Your task to perform on an android device: show emergency info Image 0: 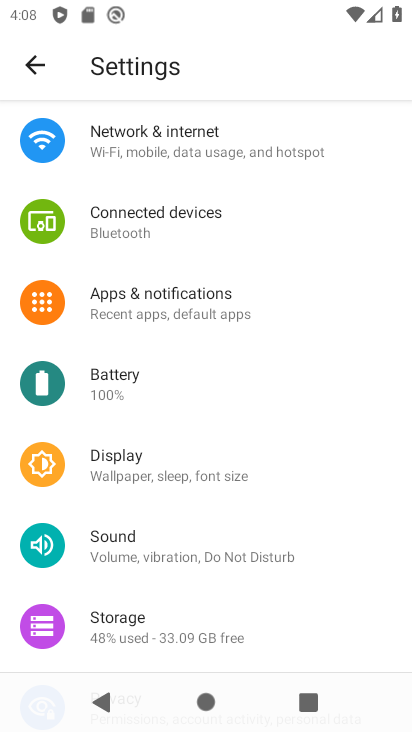
Step 0: drag from (207, 625) to (386, 29)
Your task to perform on an android device: show emergency info Image 1: 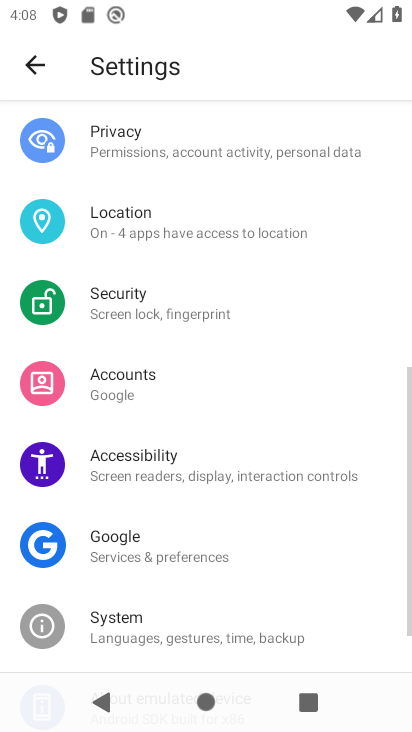
Step 1: drag from (188, 561) to (352, 8)
Your task to perform on an android device: show emergency info Image 2: 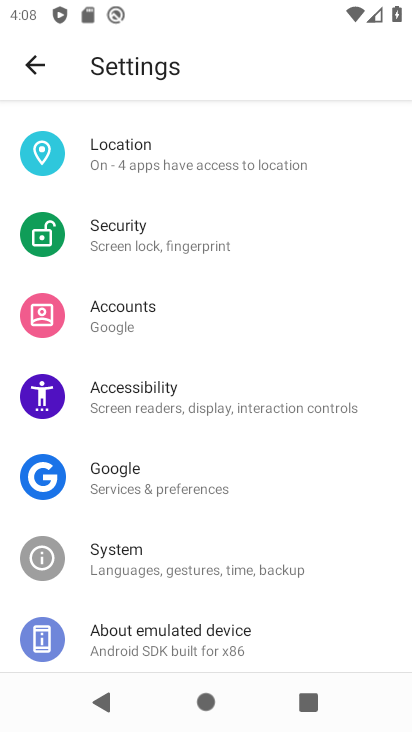
Step 2: click (202, 652)
Your task to perform on an android device: show emergency info Image 3: 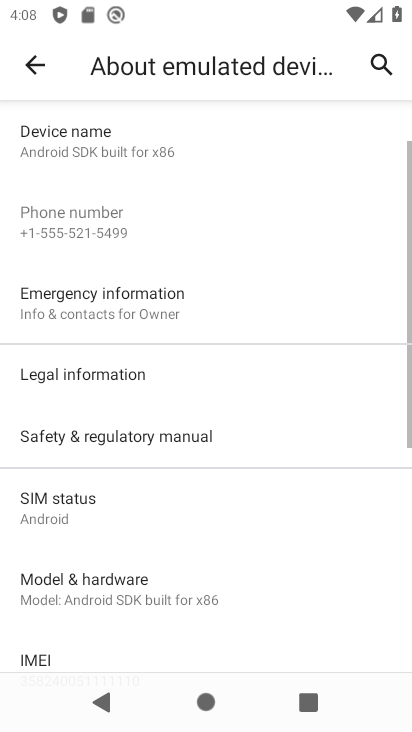
Step 3: click (173, 316)
Your task to perform on an android device: show emergency info Image 4: 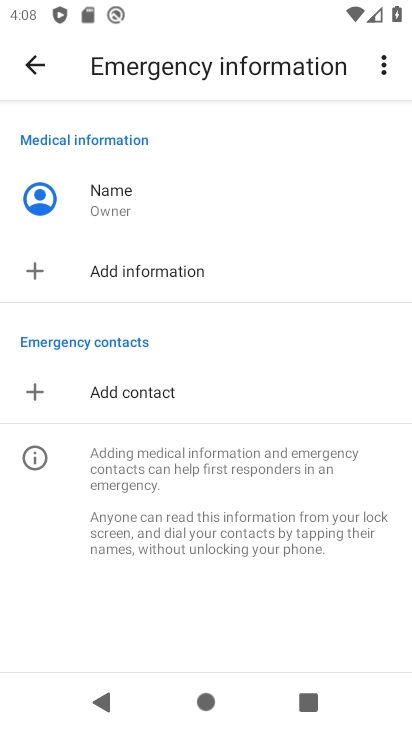
Step 4: task complete